Your task to perform on an android device: Open maps Image 0: 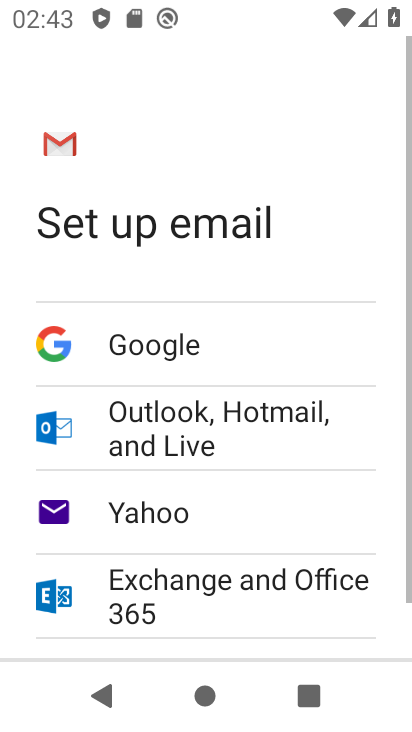
Step 0: press home button
Your task to perform on an android device: Open maps Image 1: 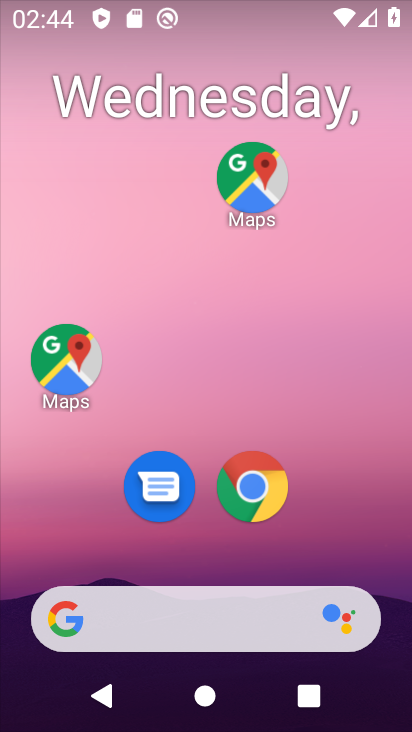
Step 1: click (256, 186)
Your task to perform on an android device: Open maps Image 2: 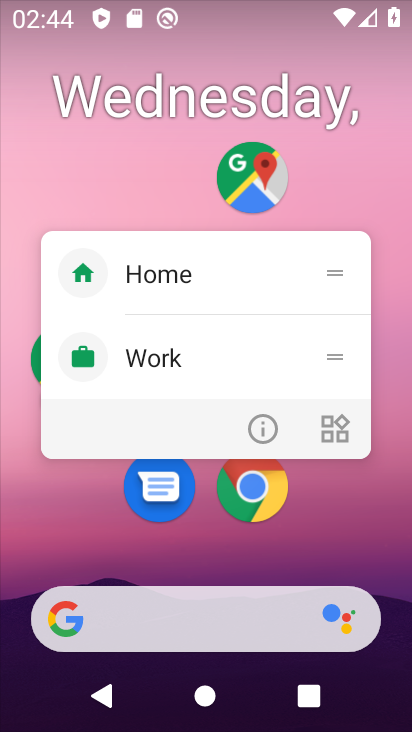
Step 2: click (247, 172)
Your task to perform on an android device: Open maps Image 3: 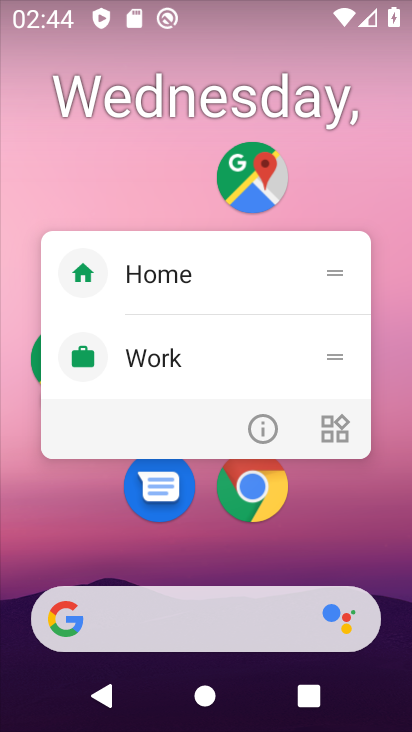
Step 3: click (247, 172)
Your task to perform on an android device: Open maps Image 4: 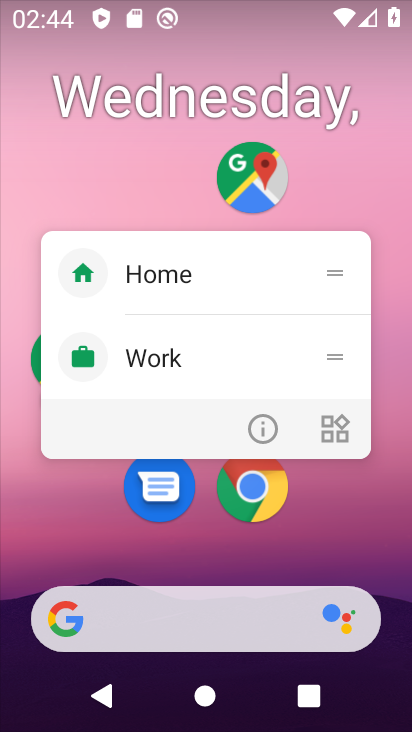
Step 4: click (246, 171)
Your task to perform on an android device: Open maps Image 5: 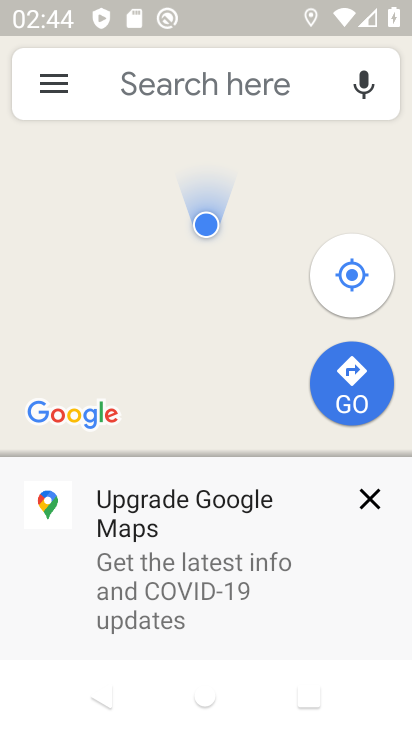
Step 5: click (370, 497)
Your task to perform on an android device: Open maps Image 6: 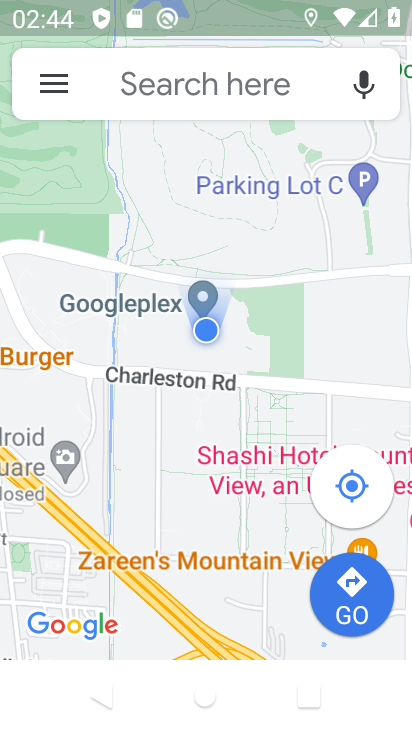
Step 6: task complete